Your task to perform on an android device: Open Google Maps and go to "Timeline" Image 0: 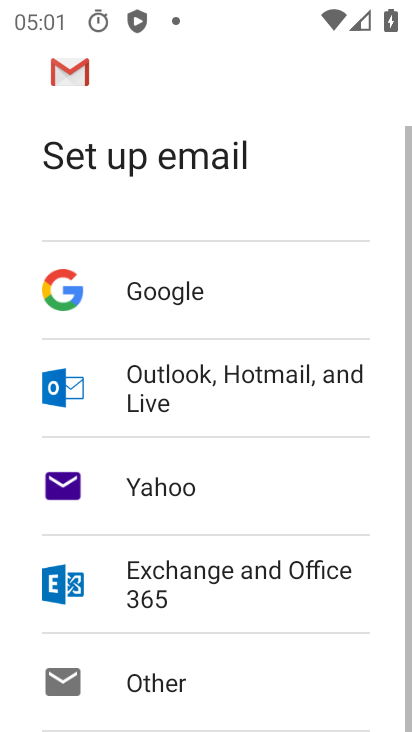
Step 0: press home button
Your task to perform on an android device: Open Google Maps and go to "Timeline" Image 1: 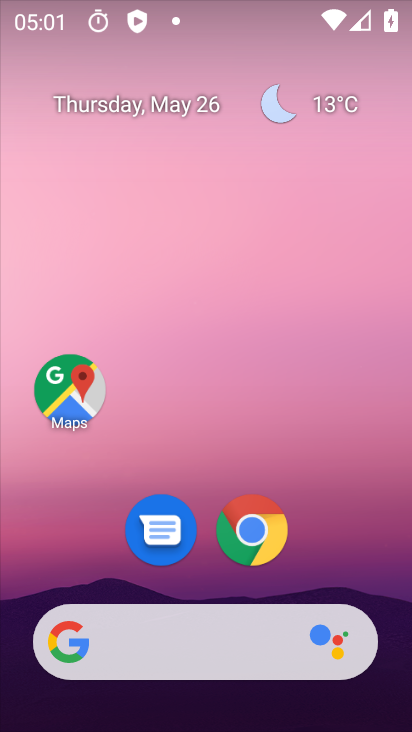
Step 1: drag from (254, 622) to (342, 2)
Your task to perform on an android device: Open Google Maps and go to "Timeline" Image 2: 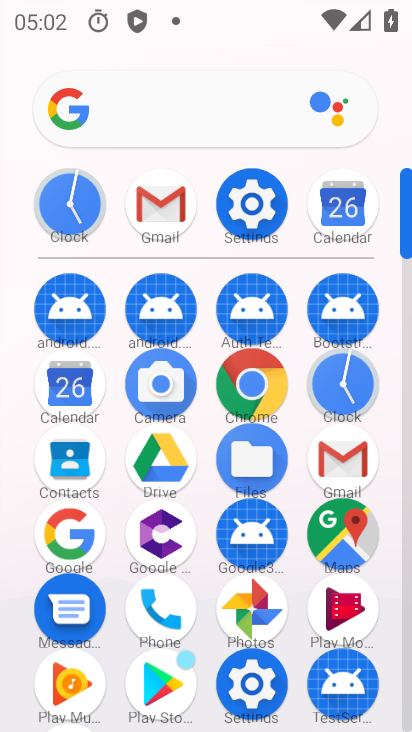
Step 2: click (345, 552)
Your task to perform on an android device: Open Google Maps and go to "Timeline" Image 3: 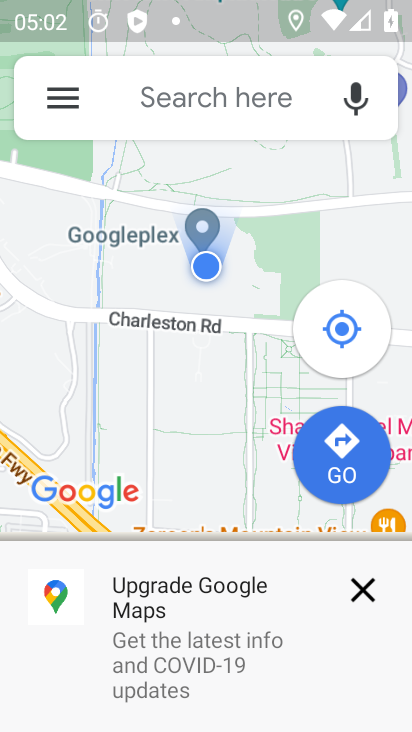
Step 3: click (59, 91)
Your task to perform on an android device: Open Google Maps and go to "Timeline" Image 4: 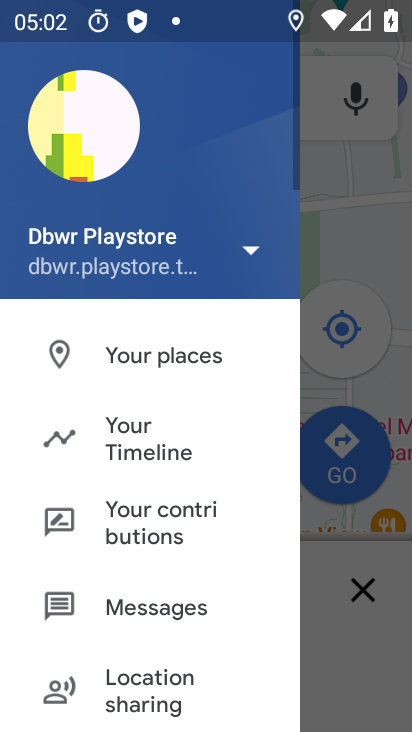
Step 4: click (169, 446)
Your task to perform on an android device: Open Google Maps and go to "Timeline" Image 5: 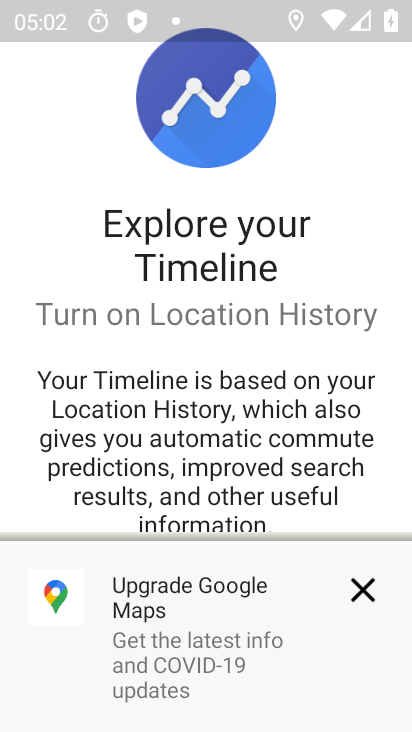
Step 5: click (360, 590)
Your task to perform on an android device: Open Google Maps and go to "Timeline" Image 6: 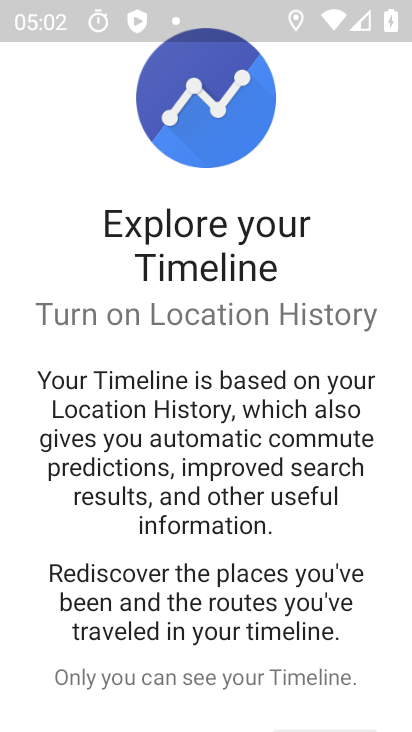
Step 6: drag from (290, 697) to (386, 2)
Your task to perform on an android device: Open Google Maps and go to "Timeline" Image 7: 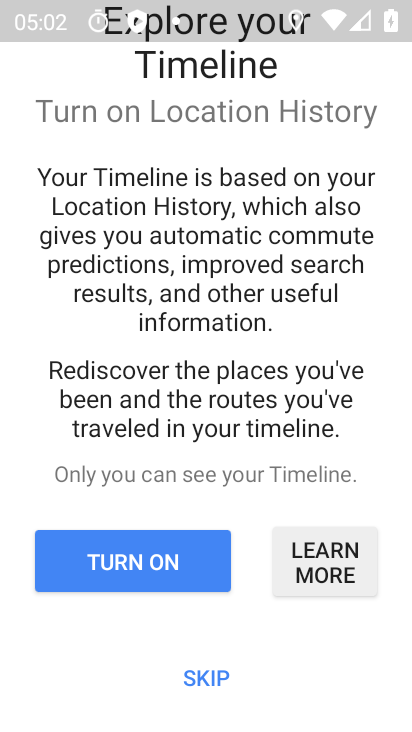
Step 7: click (208, 679)
Your task to perform on an android device: Open Google Maps and go to "Timeline" Image 8: 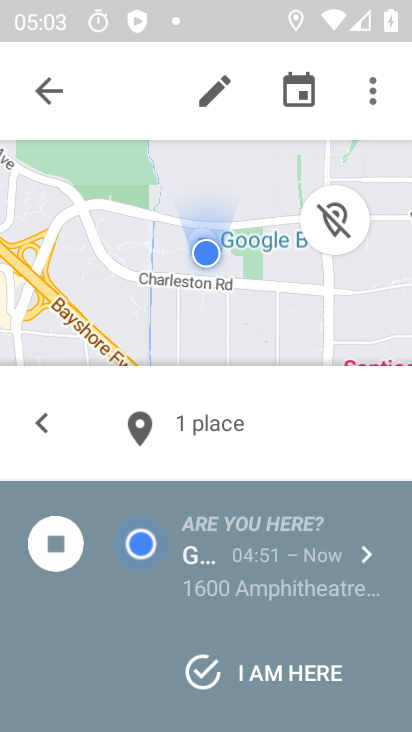
Step 8: task complete